Your task to perform on an android device: Open Chrome and go to settings Image 0: 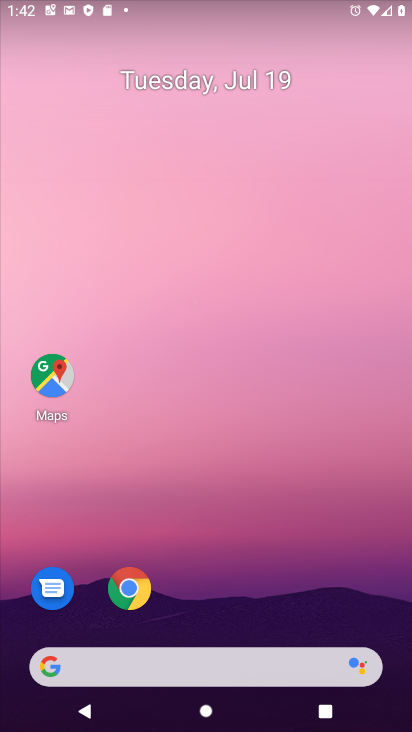
Step 0: drag from (326, 615) to (260, 249)
Your task to perform on an android device: Open Chrome and go to settings Image 1: 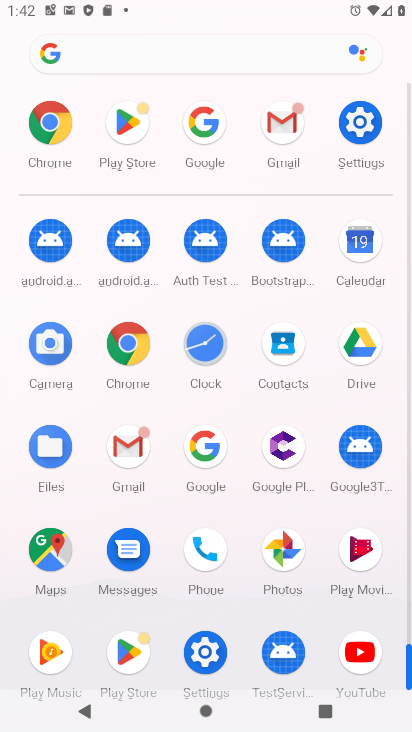
Step 1: click (136, 338)
Your task to perform on an android device: Open Chrome and go to settings Image 2: 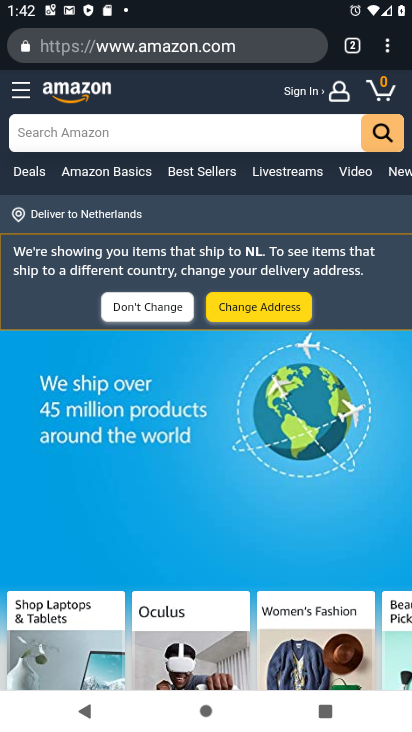
Step 2: press back button
Your task to perform on an android device: Open Chrome and go to settings Image 3: 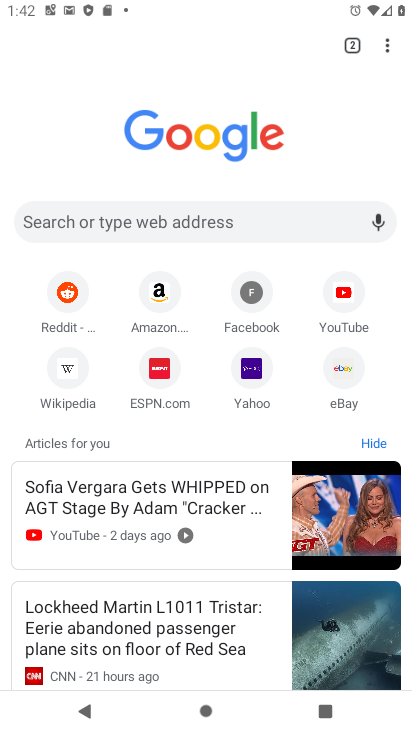
Step 3: click (388, 49)
Your task to perform on an android device: Open Chrome and go to settings Image 4: 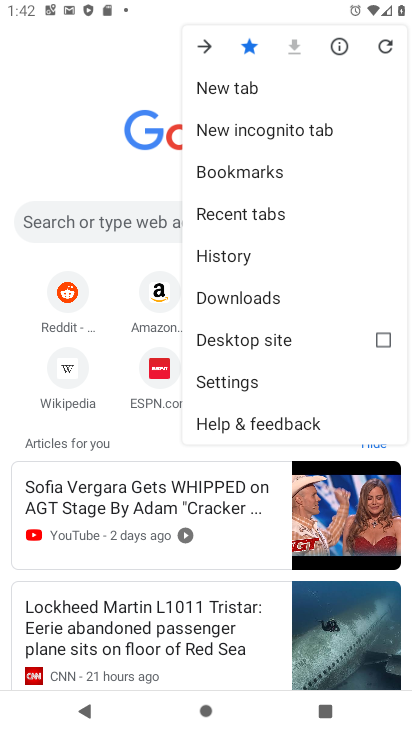
Step 4: click (234, 378)
Your task to perform on an android device: Open Chrome and go to settings Image 5: 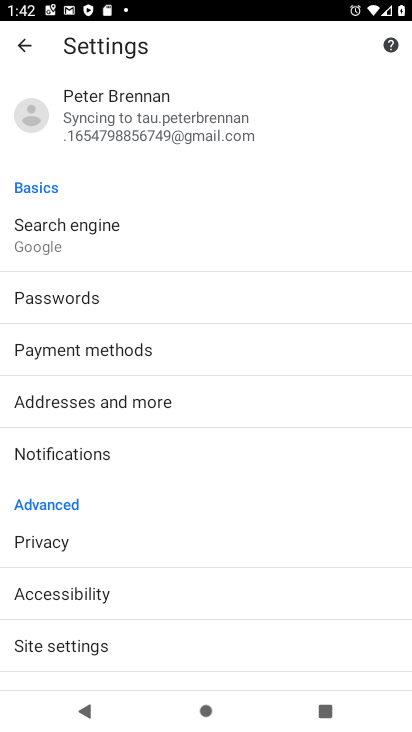
Step 5: task complete